Your task to perform on an android device: Open Google Maps and go to "Timeline" Image 0: 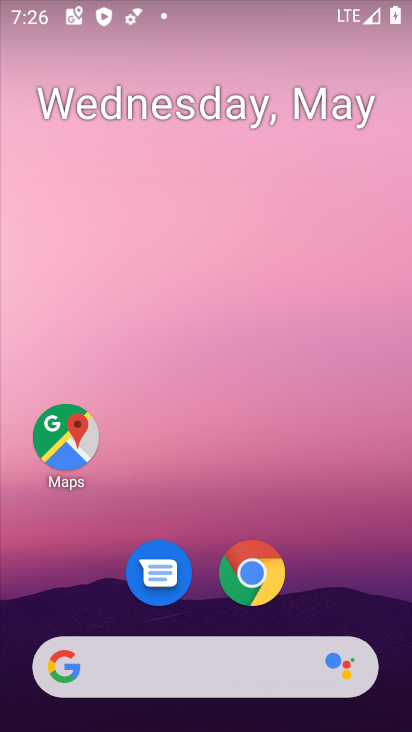
Step 0: drag from (303, 612) to (299, 214)
Your task to perform on an android device: Open Google Maps and go to "Timeline" Image 1: 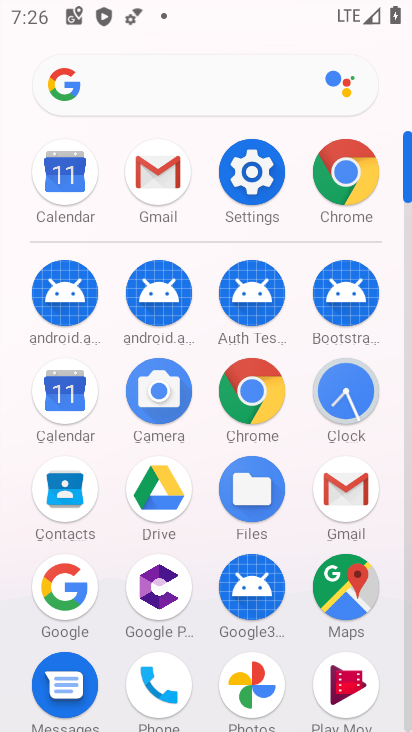
Step 1: click (363, 599)
Your task to perform on an android device: Open Google Maps and go to "Timeline" Image 2: 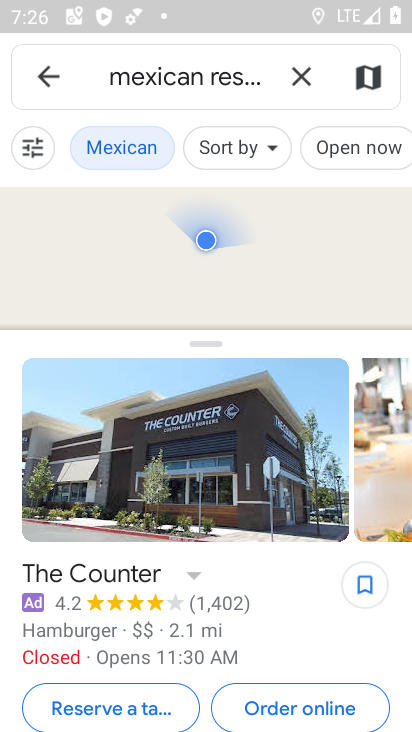
Step 2: click (40, 75)
Your task to perform on an android device: Open Google Maps and go to "Timeline" Image 3: 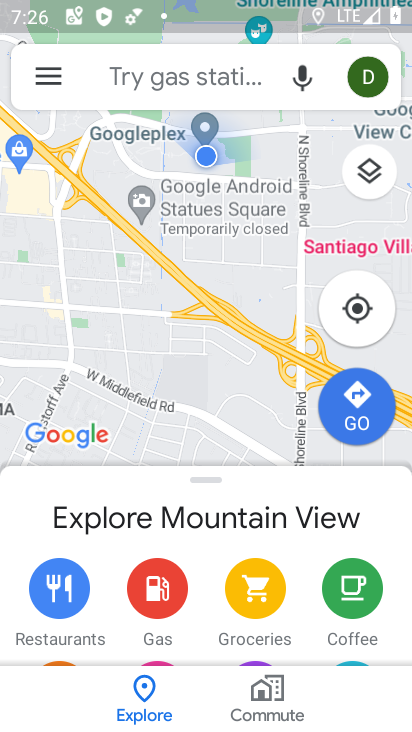
Step 3: click (52, 75)
Your task to perform on an android device: Open Google Maps and go to "Timeline" Image 4: 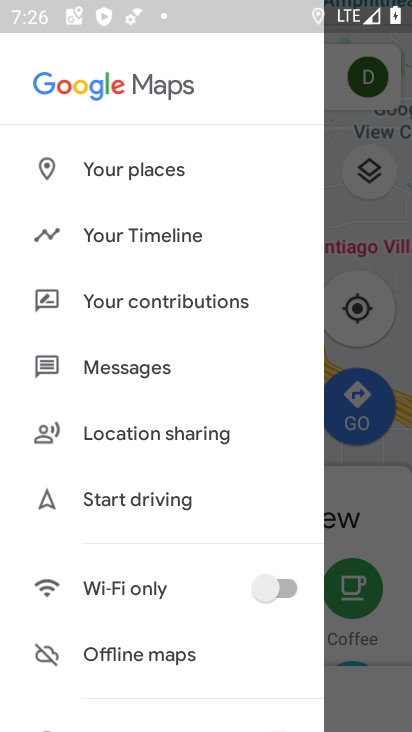
Step 4: click (152, 234)
Your task to perform on an android device: Open Google Maps and go to "Timeline" Image 5: 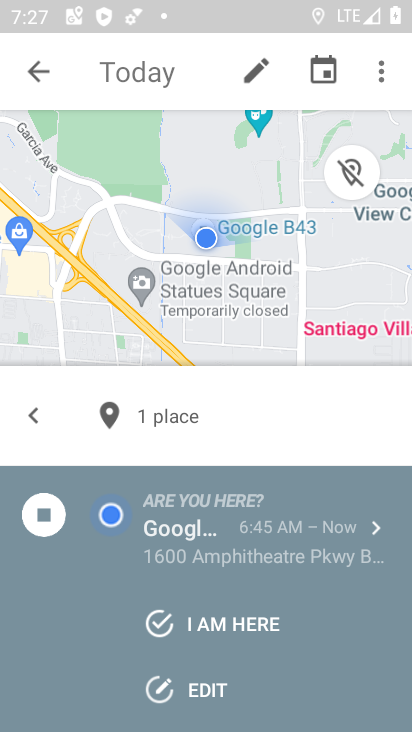
Step 5: task complete